Your task to perform on an android device: Open calendar and show me the third week of next month Image 0: 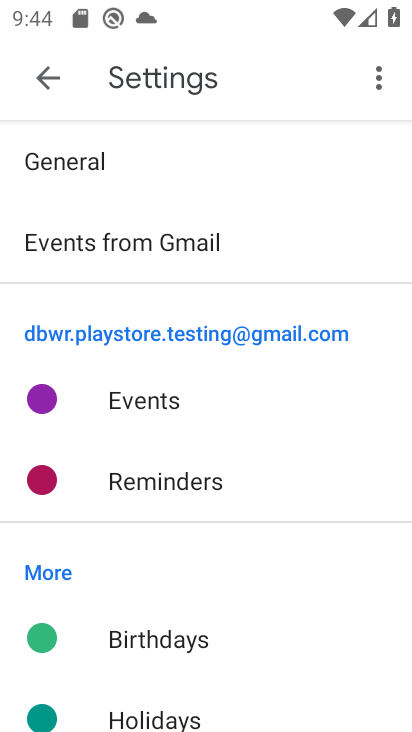
Step 0: press home button
Your task to perform on an android device: Open calendar and show me the third week of next month Image 1: 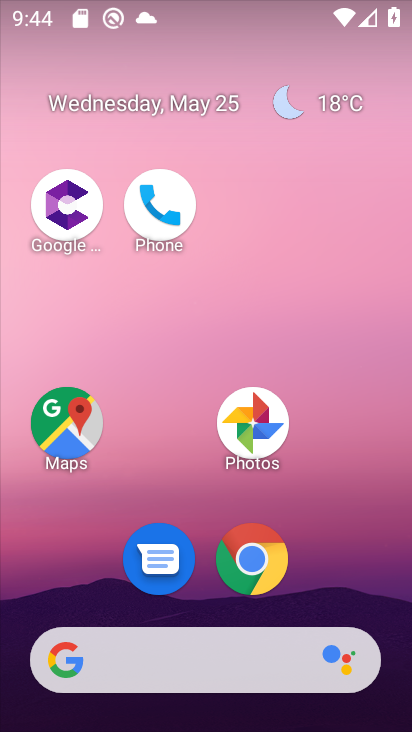
Step 1: drag from (344, 554) to (292, 39)
Your task to perform on an android device: Open calendar and show me the third week of next month Image 2: 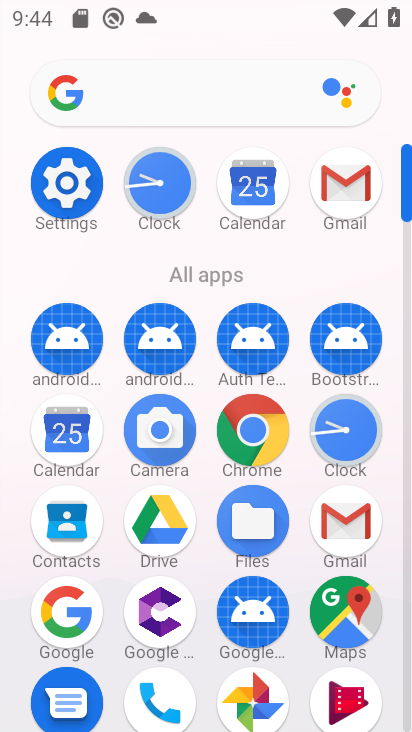
Step 2: click (246, 186)
Your task to perform on an android device: Open calendar and show me the third week of next month Image 3: 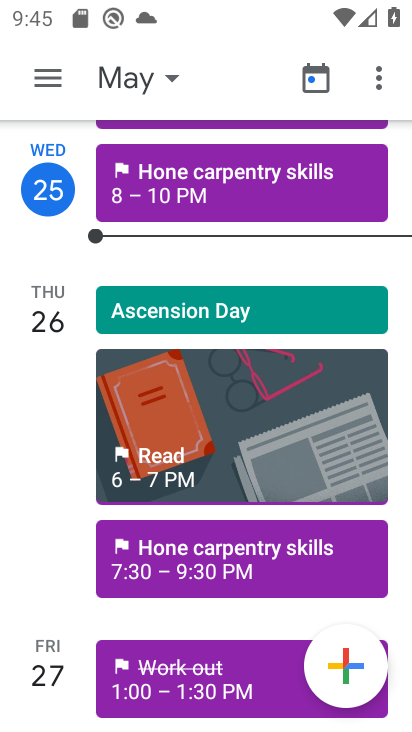
Step 3: click (50, 74)
Your task to perform on an android device: Open calendar and show me the third week of next month Image 4: 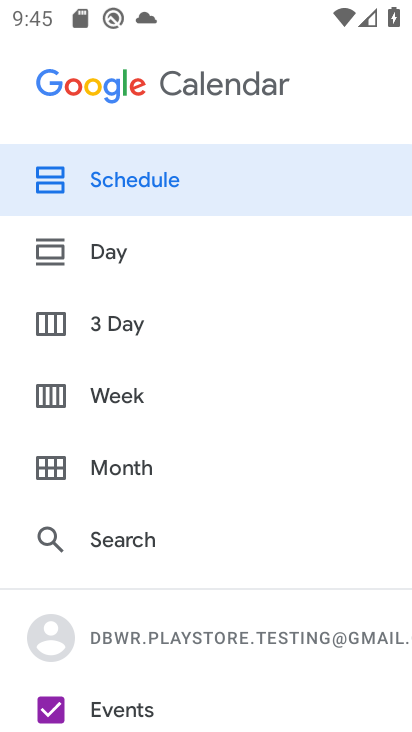
Step 4: click (129, 403)
Your task to perform on an android device: Open calendar and show me the third week of next month Image 5: 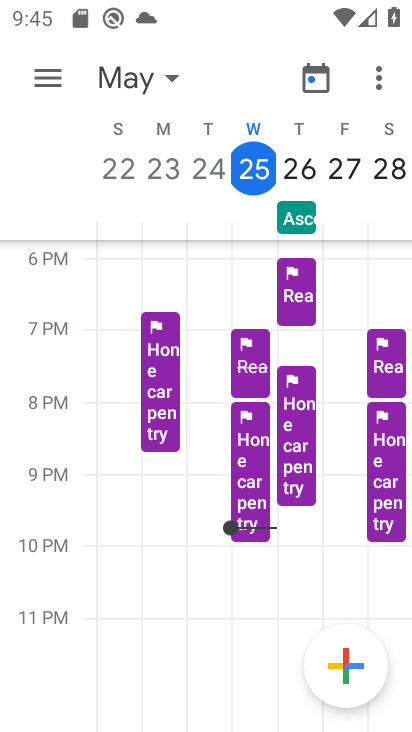
Step 5: click (131, 80)
Your task to perform on an android device: Open calendar and show me the third week of next month Image 6: 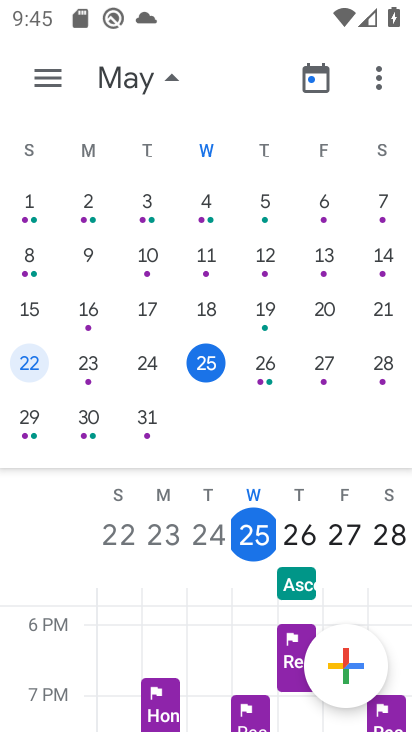
Step 6: drag from (396, 258) to (5, 191)
Your task to perform on an android device: Open calendar and show me the third week of next month Image 7: 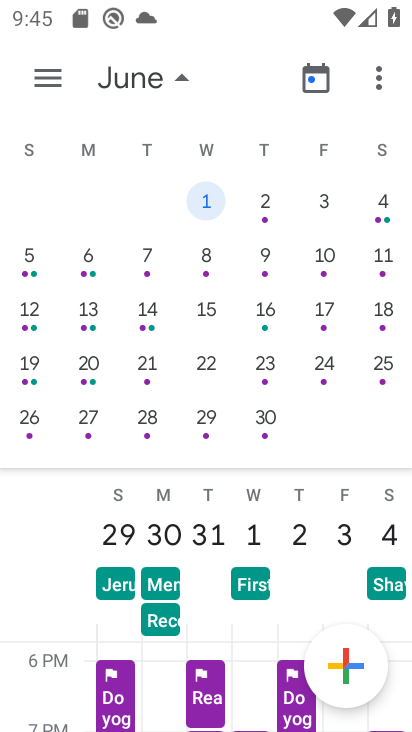
Step 7: click (325, 309)
Your task to perform on an android device: Open calendar and show me the third week of next month Image 8: 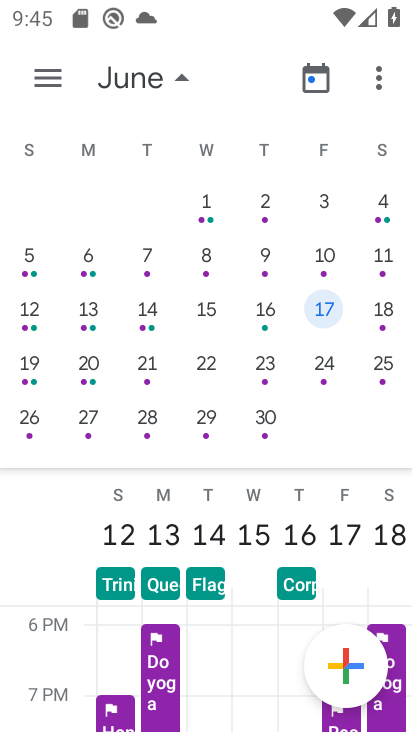
Step 8: task complete